Your task to perform on an android device: toggle improve location accuracy Image 0: 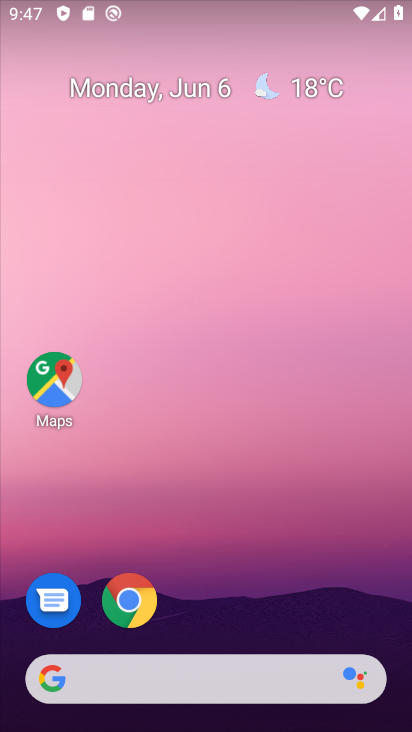
Step 0: drag from (319, 494) to (273, 36)
Your task to perform on an android device: toggle improve location accuracy Image 1: 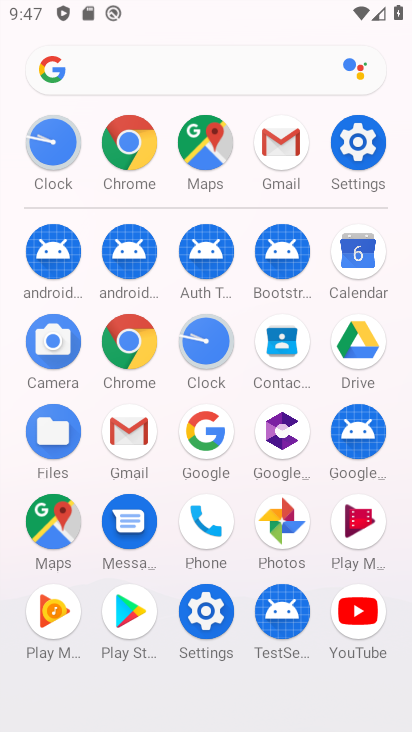
Step 1: click (207, 614)
Your task to perform on an android device: toggle improve location accuracy Image 2: 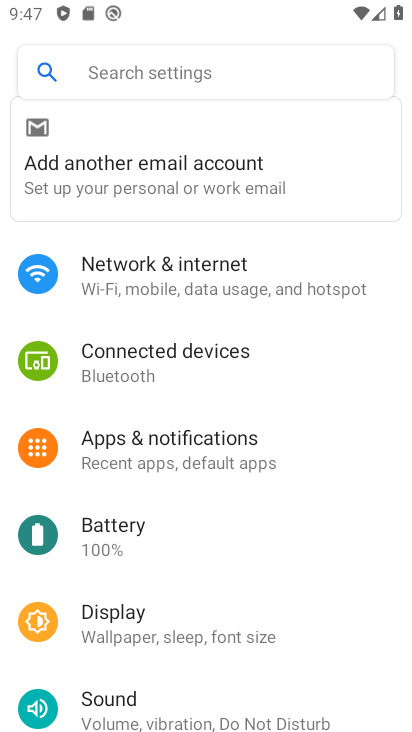
Step 2: drag from (344, 571) to (344, 184)
Your task to perform on an android device: toggle improve location accuracy Image 3: 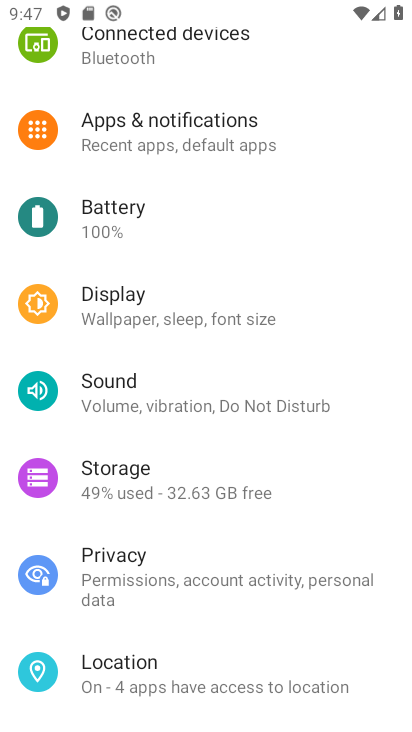
Step 3: click (219, 684)
Your task to perform on an android device: toggle improve location accuracy Image 4: 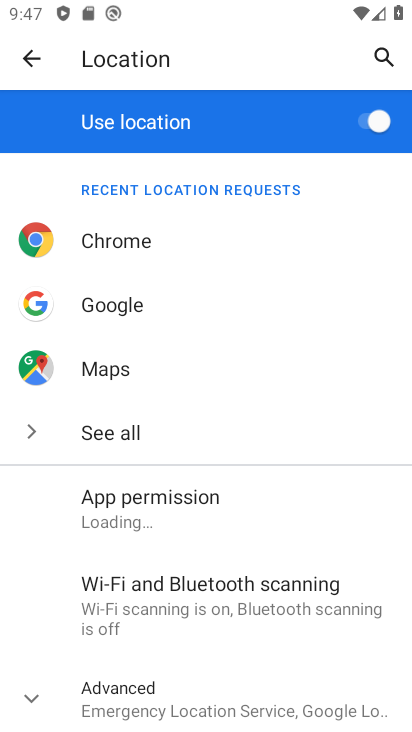
Step 4: click (53, 685)
Your task to perform on an android device: toggle improve location accuracy Image 5: 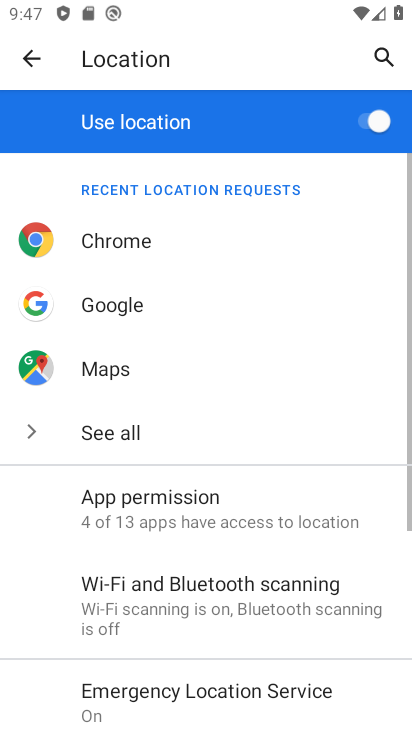
Step 5: drag from (304, 628) to (345, 248)
Your task to perform on an android device: toggle improve location accuracy Image 6: 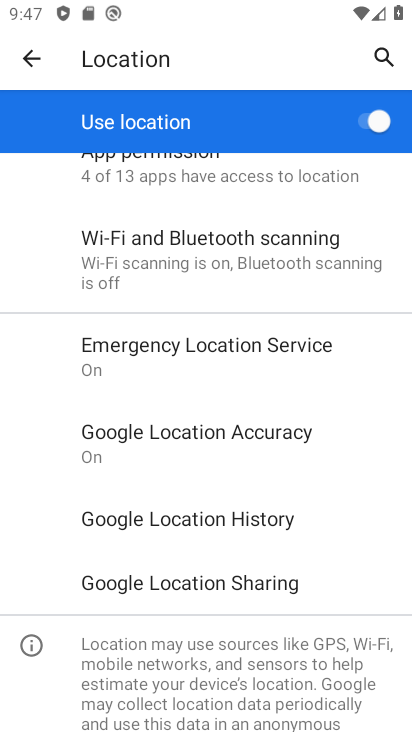
Step 6: click (260, 437)
Your task to perform on an android device: toggle improve location accuracy Image 7: 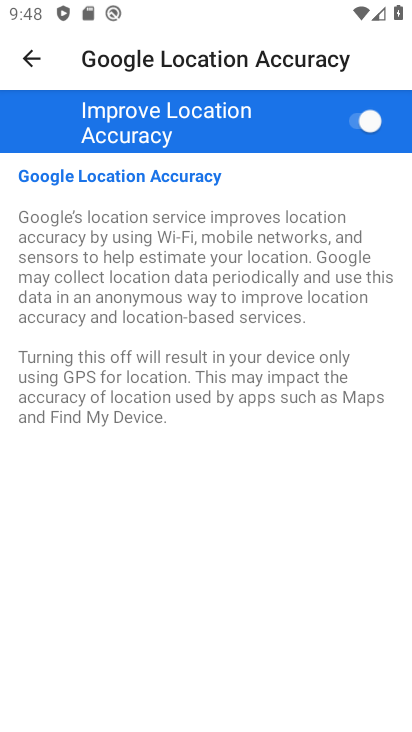
Step 7: click (369, 120)
Your task to perform on an android device: toggle improve location accuracy Image 8: 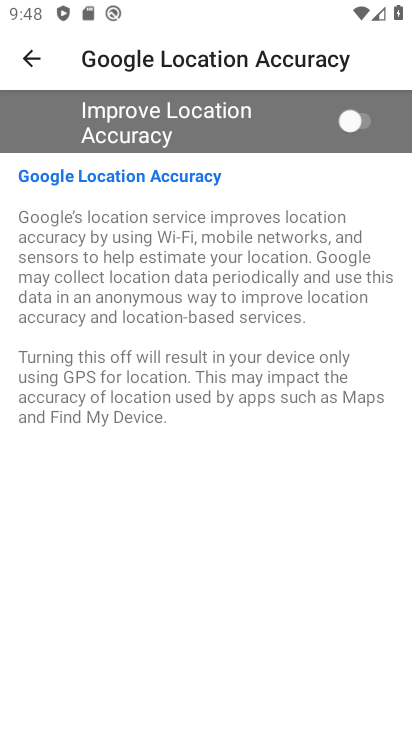
Step 8: task complete